Your task to perform on an android device: delete a single message in the gmail app Image 0: 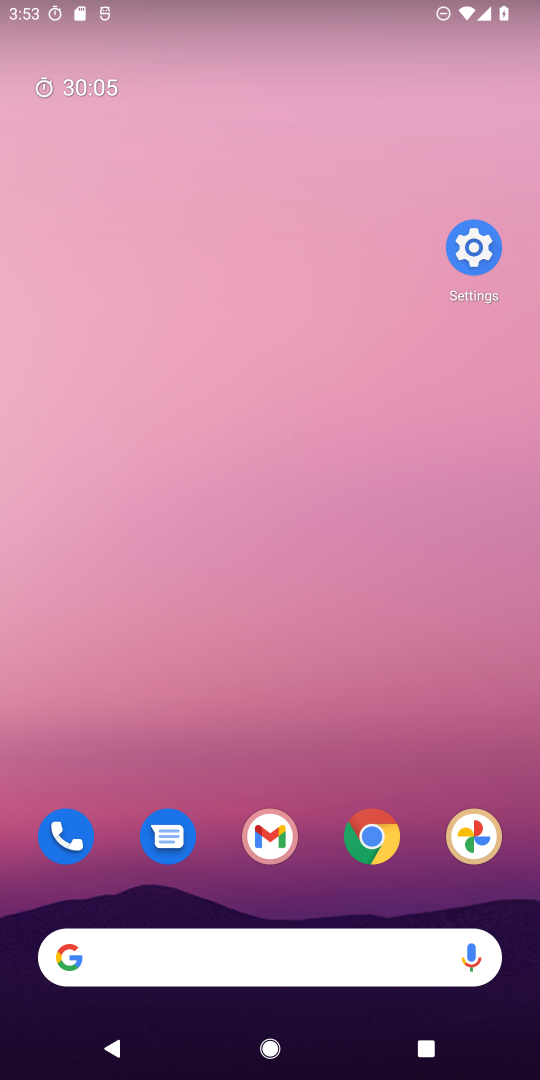
Step 0: click (266, 840)
Your task to perform on an android device: delete a single message in the gmail app Image 1: 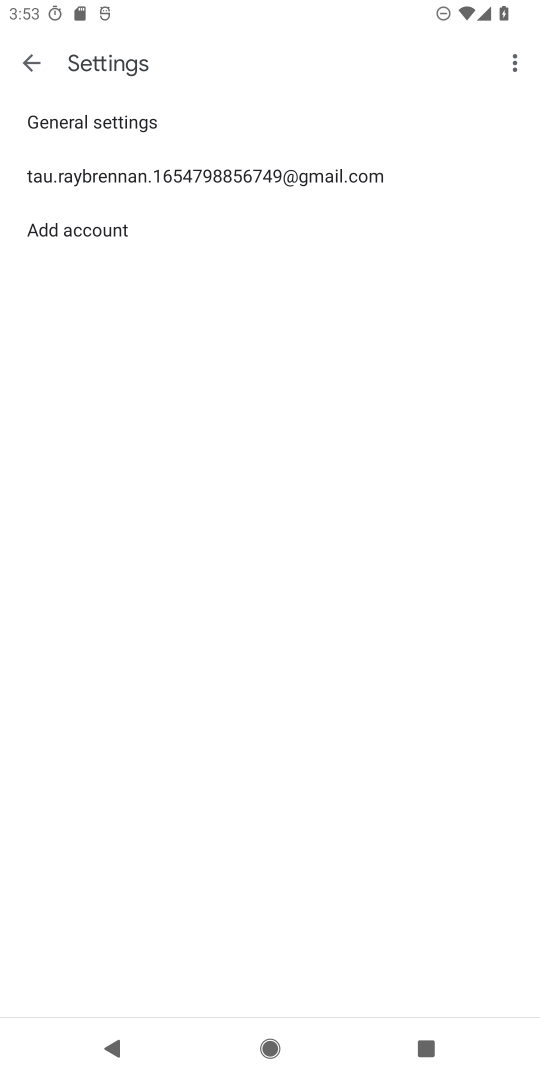
Step 1: click (28, 67)
Your task to perform on an android device: delete a single message in the gmail app Image 2: 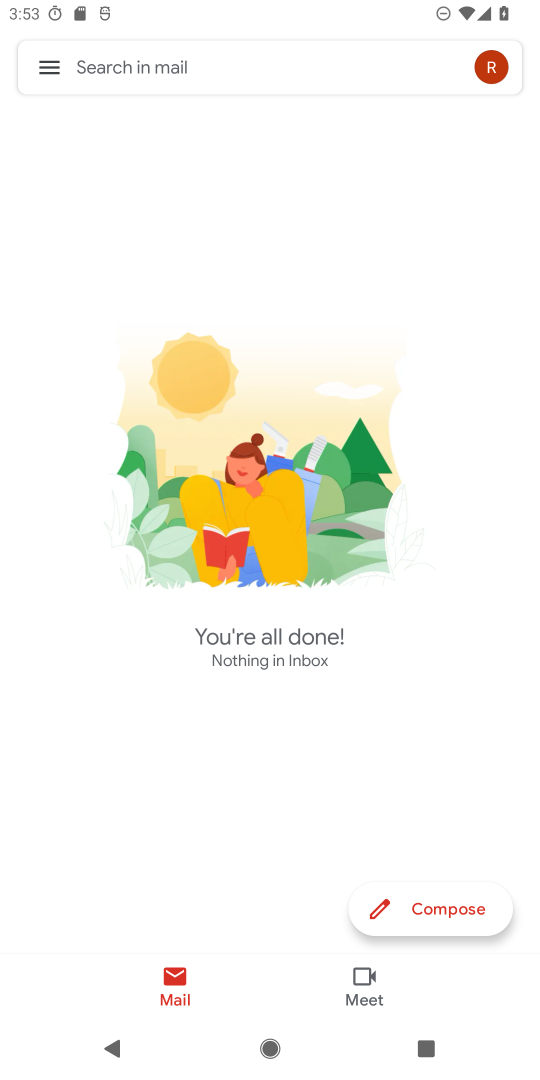
Step 2: click (63, 58)
Your task to perform on an android device: delete a single message in the gmail app Image 3: 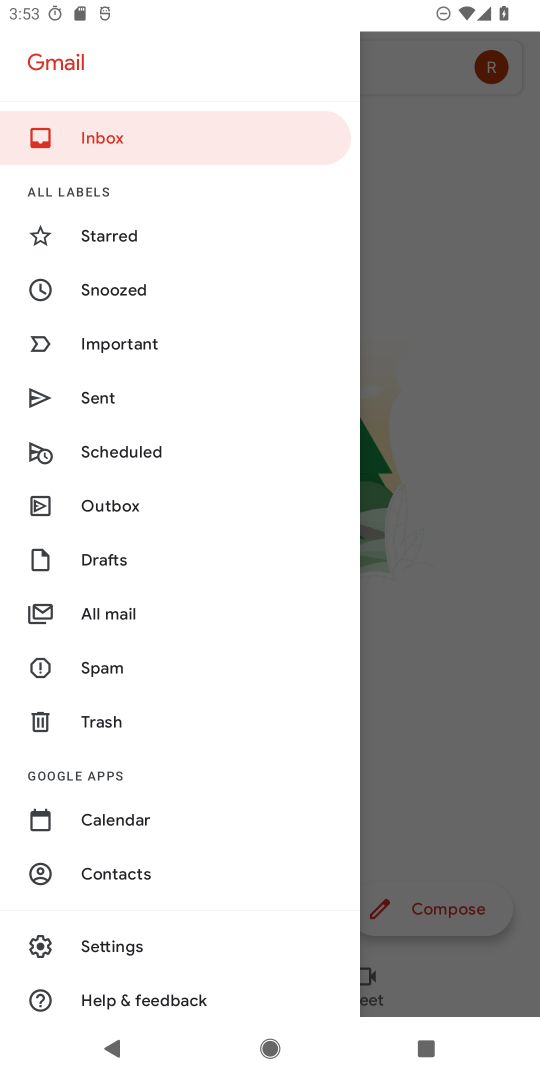
Step 3: task complete